Your task to perform on an android device: Go to network settings Image 0: 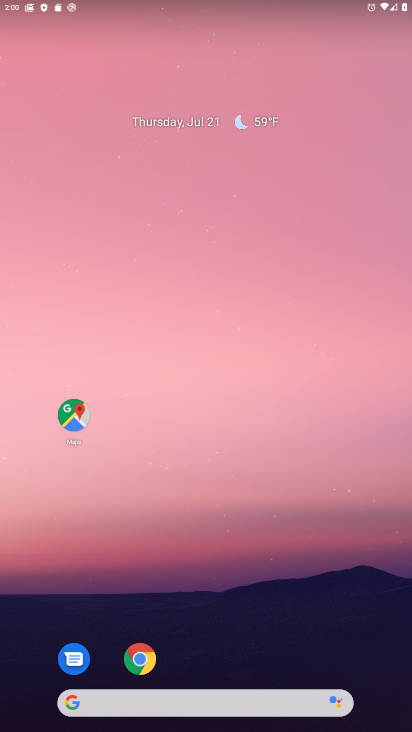
Step 0: drag from (320, 582) to (313, 201)
Your task to perform on an android device: Go to network settings Image 1: 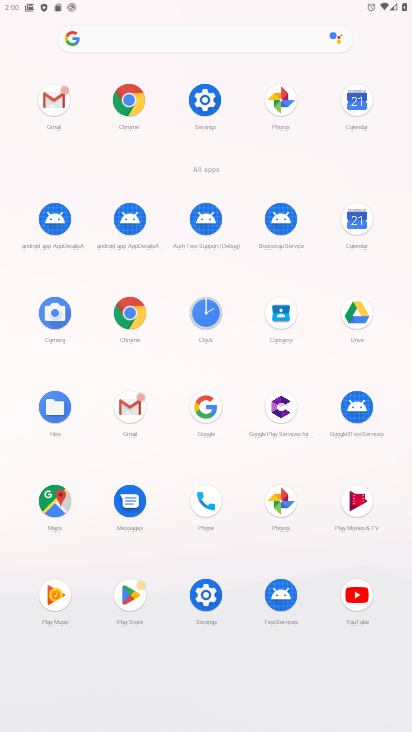
Step 1: click (196, 97)
Your task to perform on an android device: Go to network settings Image 2: 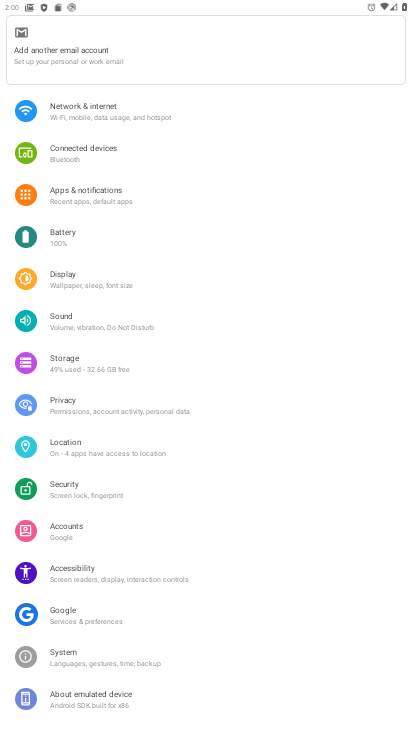
Step 2: click (97, 119)
Your task to perform on an android device: Go to network settings Image 3: 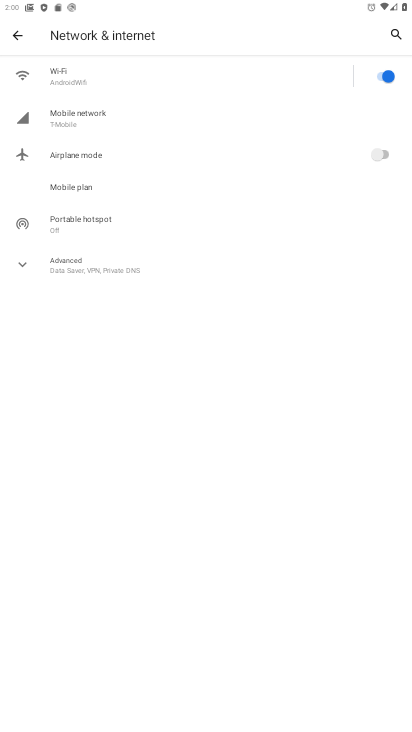
Step 3: task complete